Your task to perform on an android device: Open the clock Image 0: 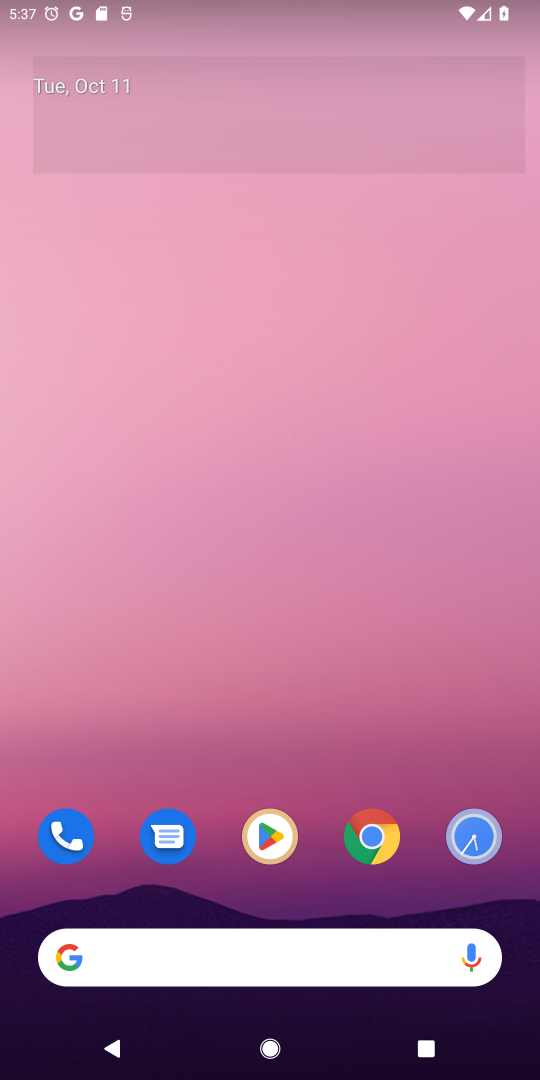
Step 0: click (457, 843)
Your task to perform on an android device: Open the clock Image 1: 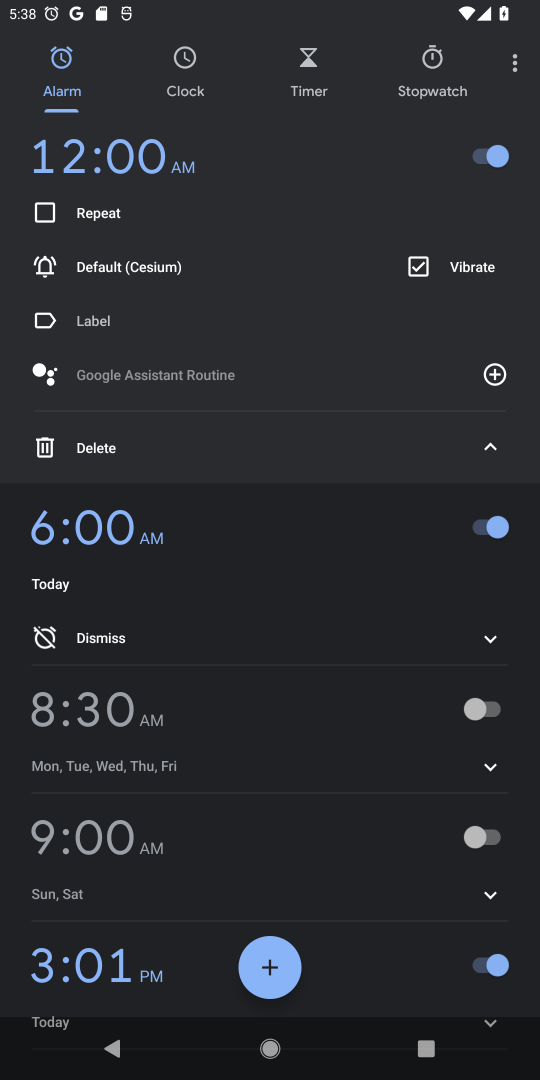
Step 1: task complete